Your task to perform on an android device: What's the weather? Image 0: 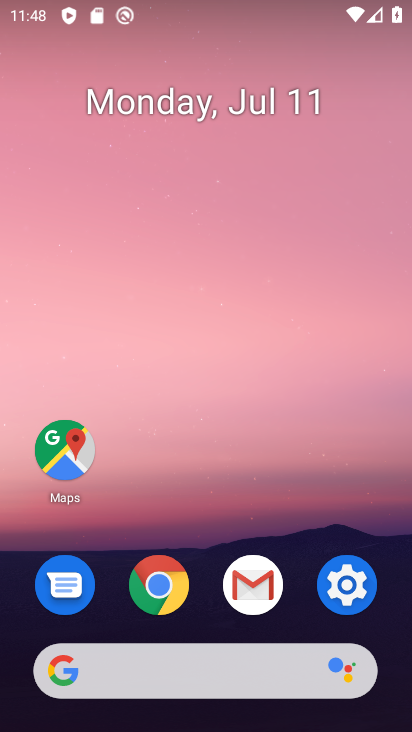
Step 0: click (175, 664)
Your task to perform on an android device: What's the weather? Image 1: 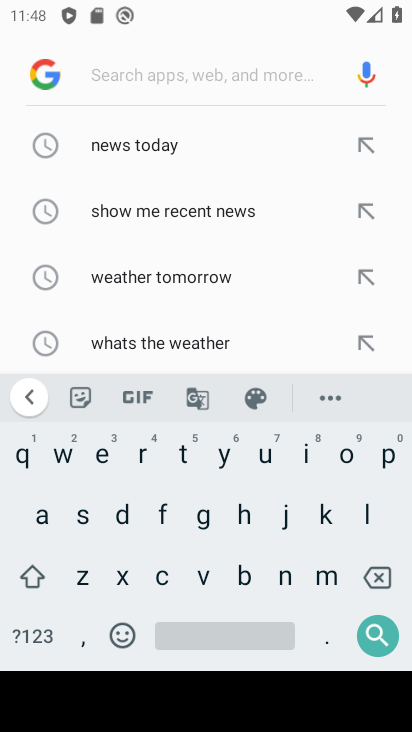
Step 1: click (60, 466)
Your task to perform on an android device: What's the weather? Image 2: 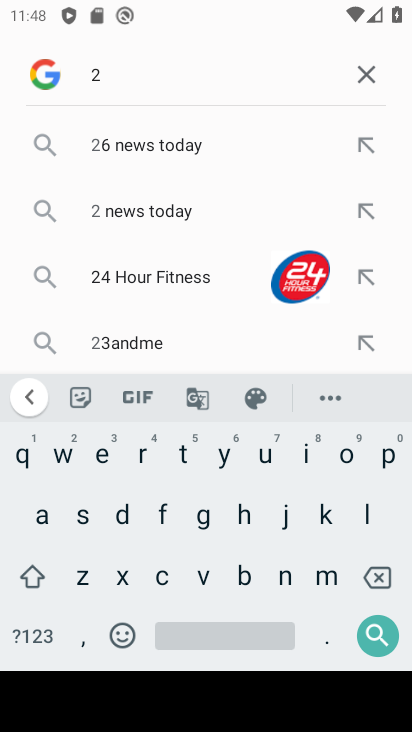
Step 2: click (380, 579)
Your task to perform on an android device: What's the weather? Image 3: 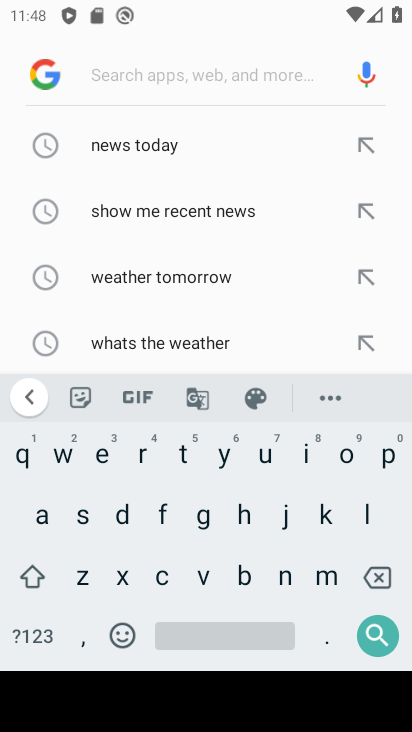
Step 3: click (67, 460)
Your task to perform on an android device: What's the weather? Image 4: 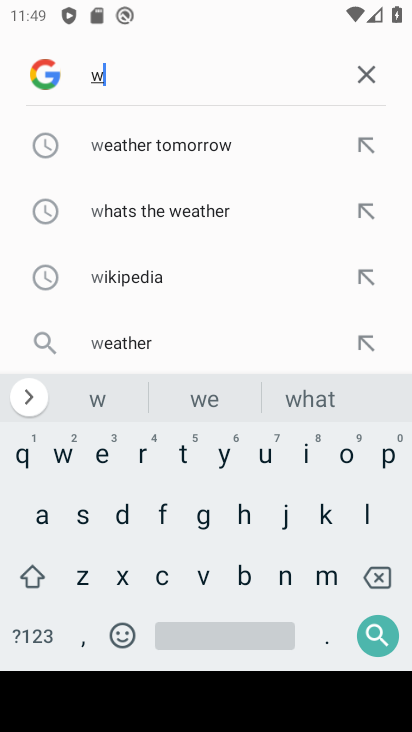
Step 4: click (110, 336)
Your task to perform on an android device: What's the weather? Image 5: 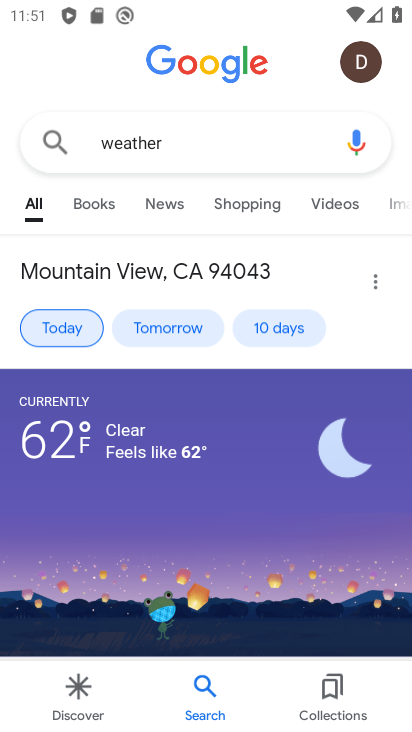
Step 5: task complete